Your task to perform on an android device: turn off improve location accuracy Image 0: 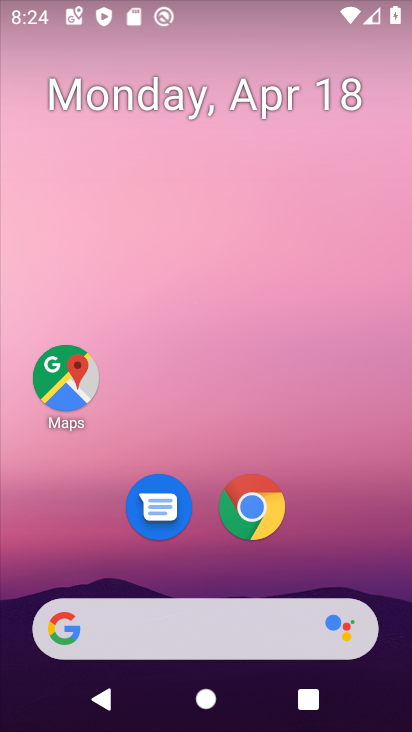
Step 0: drag from (269, 78) to (239, 176)
Your task to perform on an android device: turn off improve location accuracy Image 1: 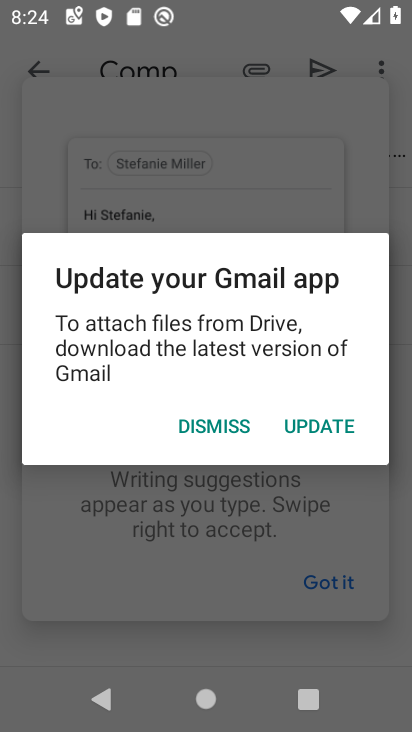
Step 1: press home button
Your task to perform on an android device: turn off improve location accuracy Image 2: 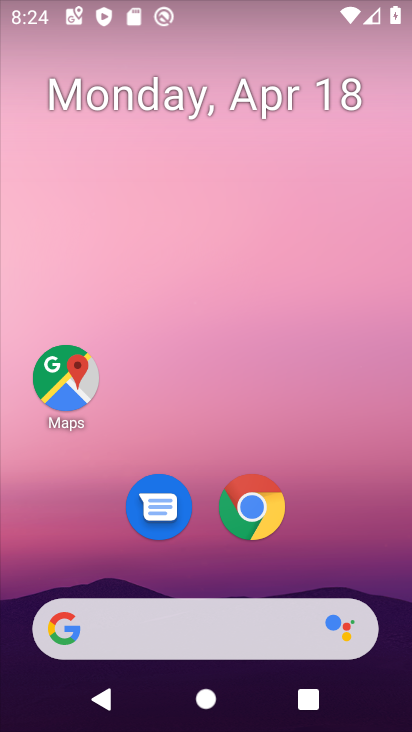
Step 2: drag from (243, 724) to (184, 50)
Your task to perform on an android device: turn off improve location accuracy Image 3: 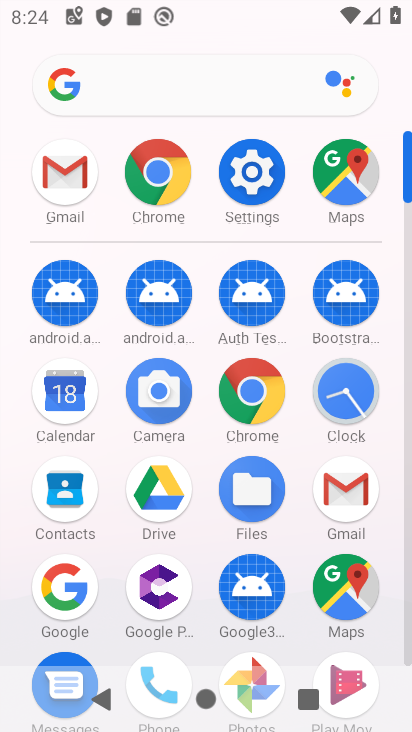
Step 3: click (249, 172)
Your task to perform on an android device: turn off improve location accuracy Image 4: 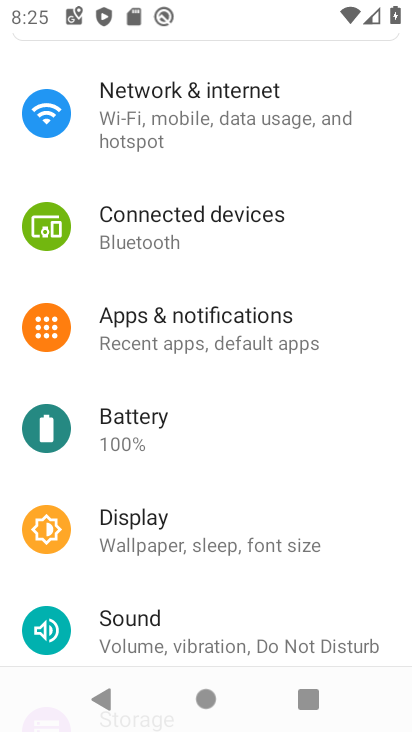
Step 4: drag from (212, 582) to (223, 250)
Your task to perform on an android device: turn off improve location accuracy Image 5: 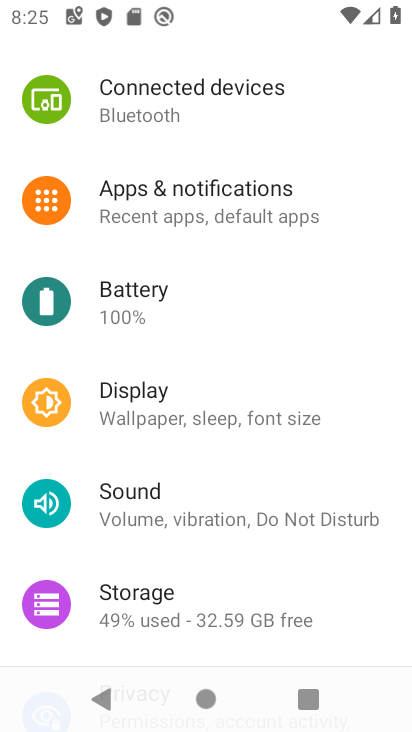
Step 5: drag from (329, 598) to (291, 398)
Your task to perform on an android device: turn off improve location accuracy Image 6: 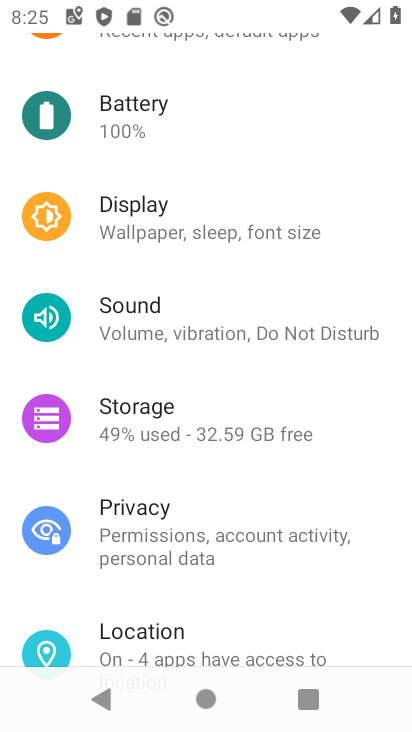
Step 6: click (240, 647)
Your task to perform on an android device: turn off improve location accuracy Image 7: 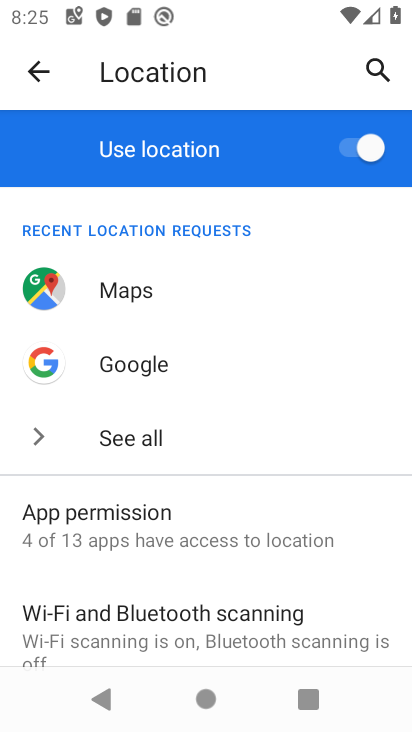
Step 7: drag from (229, 494) to (225, 48)
Your task to perform on an android device: turn off improve location accuracy Image 8: 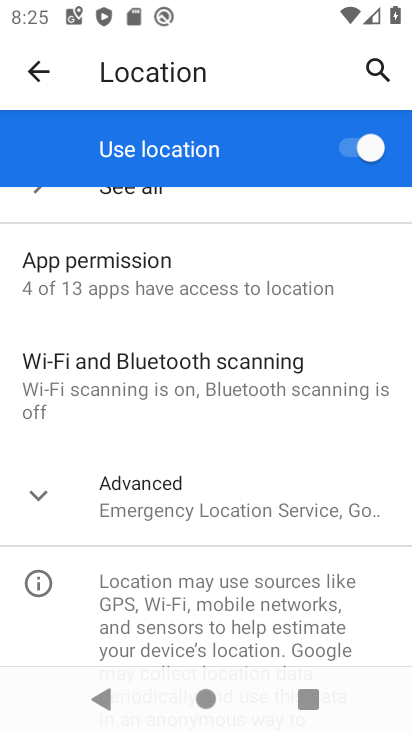
Step 8: click (125, 510)
Your task to perform on an android device: turn off improve location accuracy Image 9: 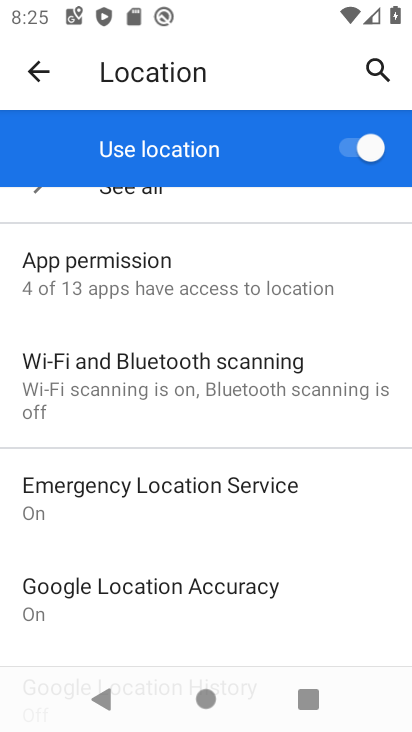
Step 9: click (194, 605)
Your task to perform on an android device: turn off improve location accuracy Image 10: 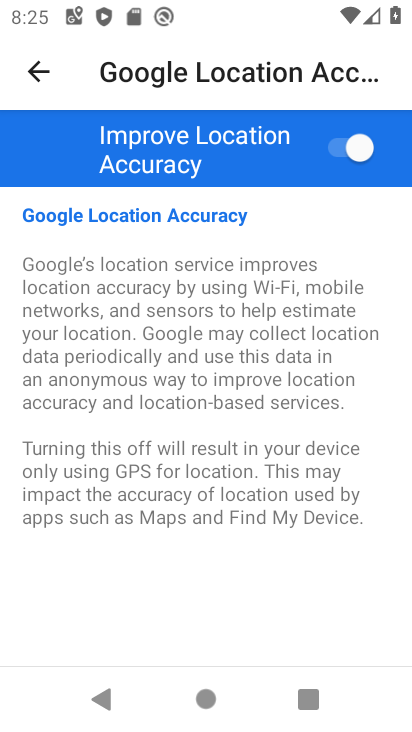
Step 10: click (339, 142)
Your task to perform on an android device: turn off improve location accuracy Image 11: 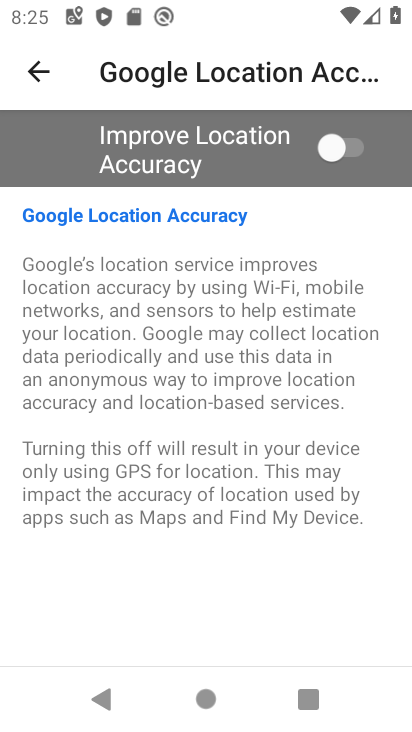
Step 11: task complete